Your task to perform on an android device: Go to accessibility settings Image 0: 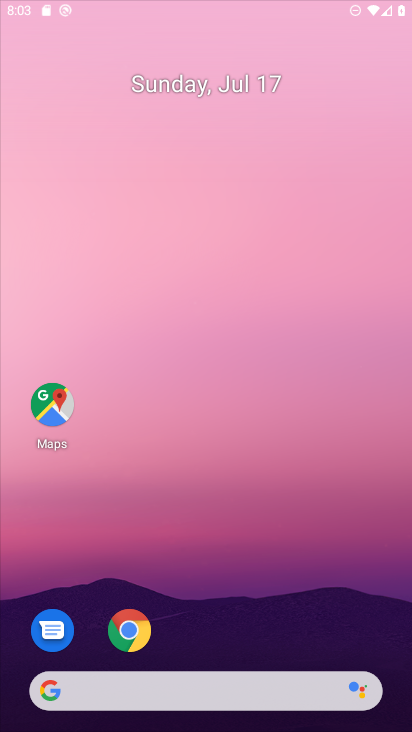
Step 0: click (239, 315)
Your task to perform on an android device: Go to accessibility settings Image 1: 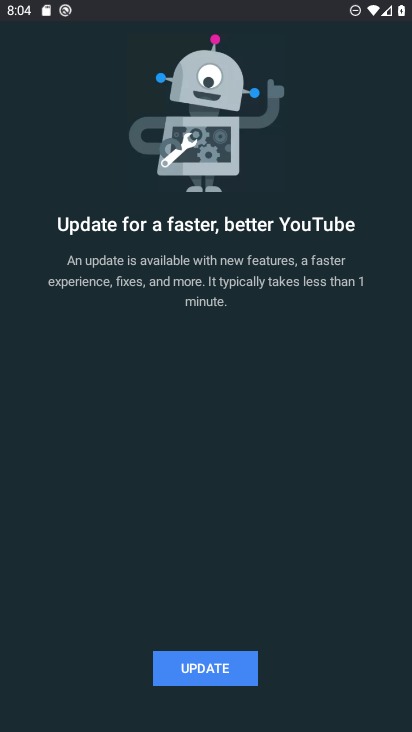
Step 1: press home button
Your task to perform on an android device: Go to accessibility settings Image 2: 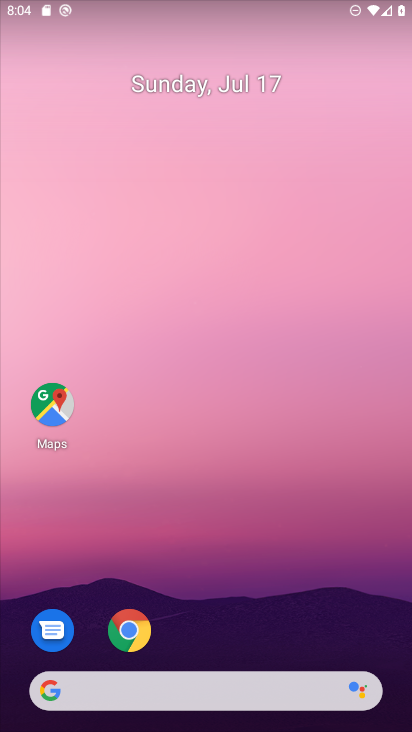
Step 2: drag from (265, 625) to (298, 292)
Your task to perform on an android device: Go to accessibility settings Image 3: 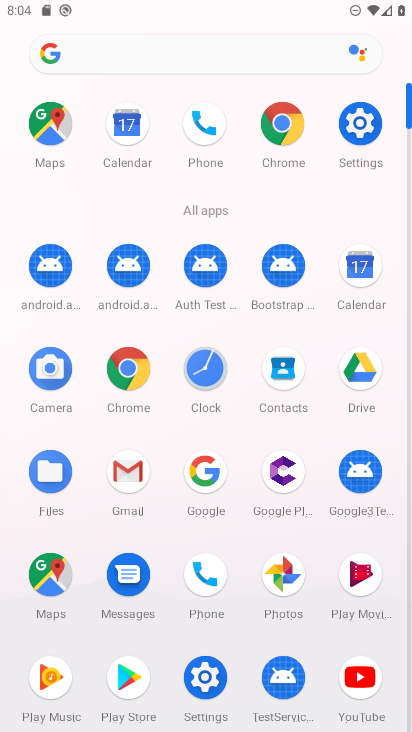
Step 3: click (350, 112)
Your task to perform on an android device: Go to accessibility settings Image 4: 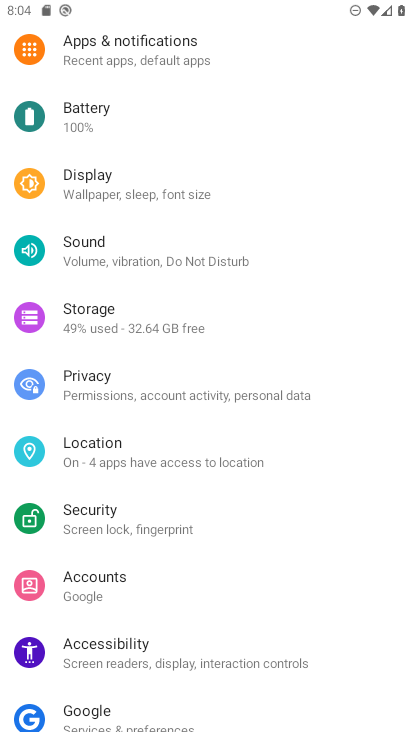
Step 4: click (162, 671)
Your task to perform on an android device: Go to accessibility settings Image 5: 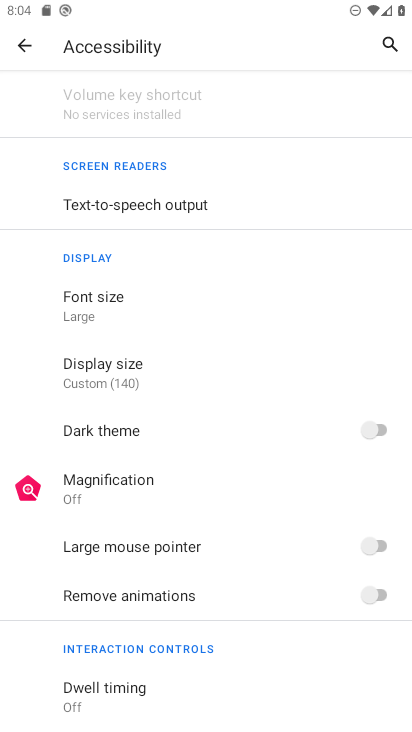
Step 5: task complete